Your task to perform on an android device: clear all cookies in the chrome app Image 0: 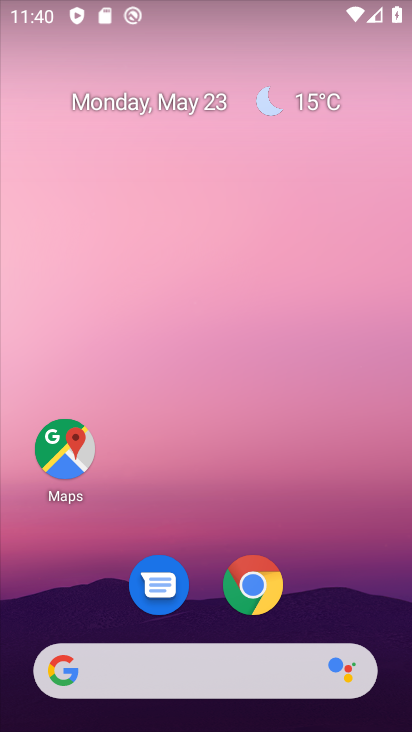
Step 0: click (260, 582)
Your task to perform on an android device: clear all cookies in the chrome app Image 1: 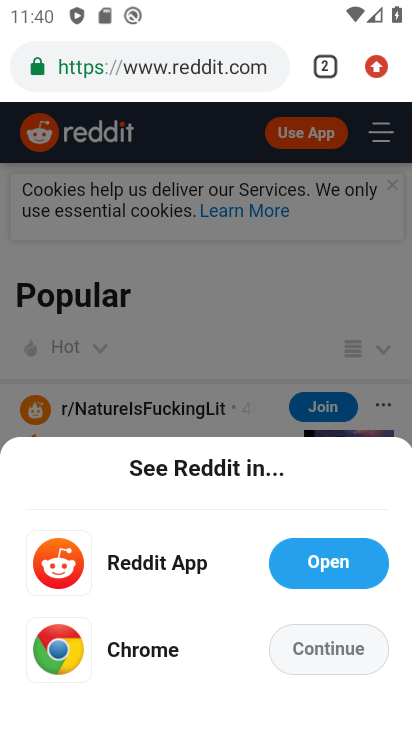
Step 1: click (379, 60)
Your task to perform on an android device: clear all cookies in the chrome app Image 2: 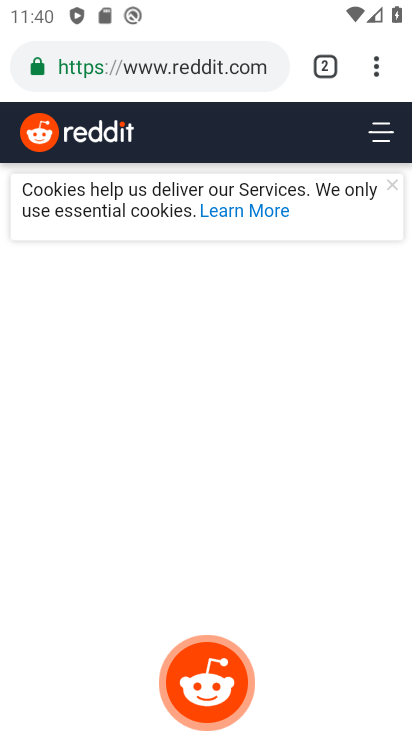
Step 2: click (376, 63)
Your task to perform on an android device: clear all cookies in the chrome app Image 3: 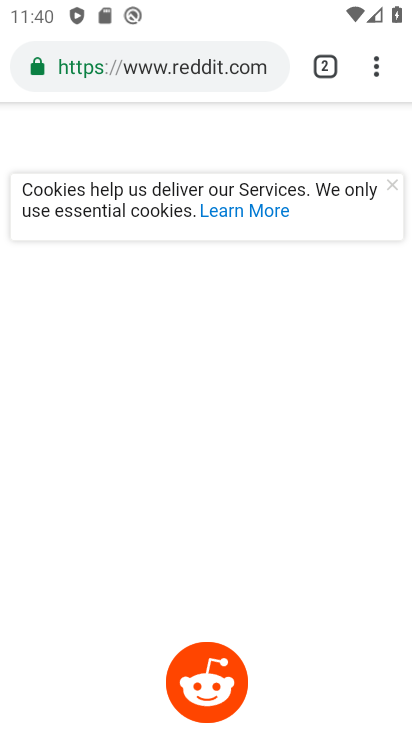
Step 3: click (376, 63)
Your task to perform on an android device: clear all cookies in the chrome app Image 4: 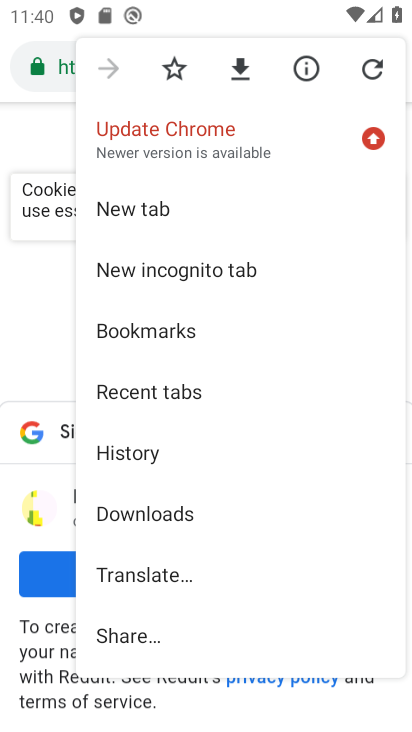
Step 4: drag from (219, 553) to (247, 177)
Your task to perform on an android device: clear all cookies in the chrome app Image 5: 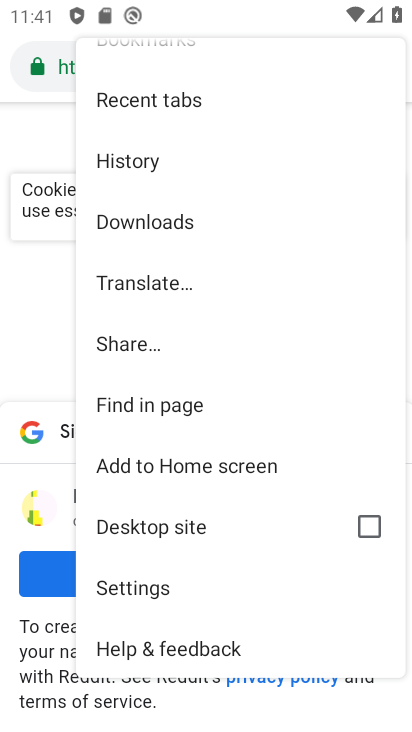
Step 5: click (160, 587)
Your task to perform on an android device: clear all cookies in the chrome app Image 6: 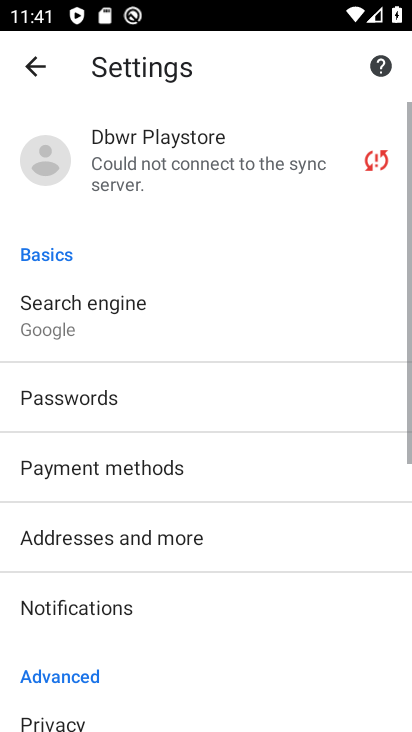
Step 6: drag from (160, 587) to (198, 344)
Your task to perform on an android device: clear all cookies in the chrome app Image 7: 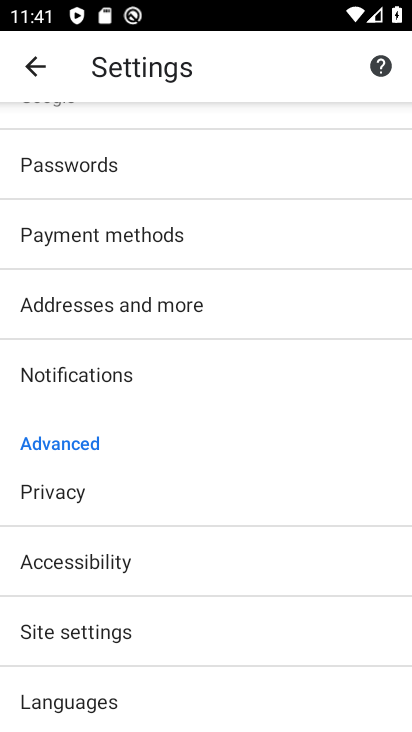
Step 7: click (181, 497)
Your task to perform on an android device: clear all cookies in the chrome app Image 8: 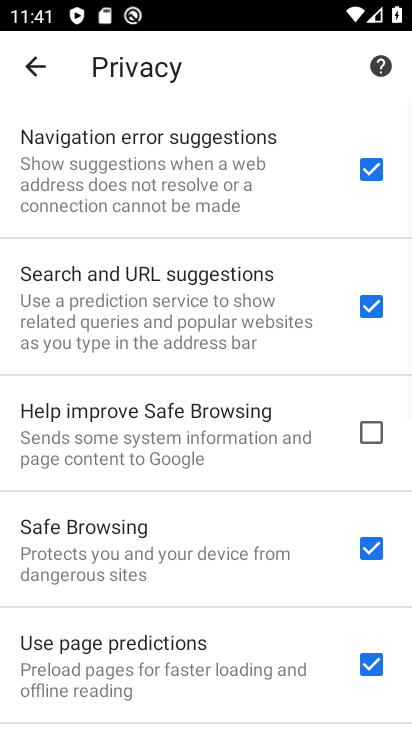
Step 8: drag from (205, 622) to (279, 49)
Your task to perform on an android device: clear all cookies in the chrome app Image 9: 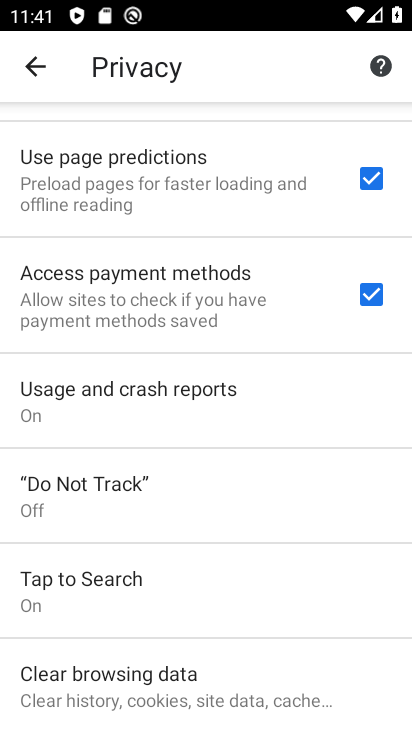
Step 9: drag from (214, 542) to (252, 244)
Your task to perform on an android device: clear all cookies in the chrome app Image 10: 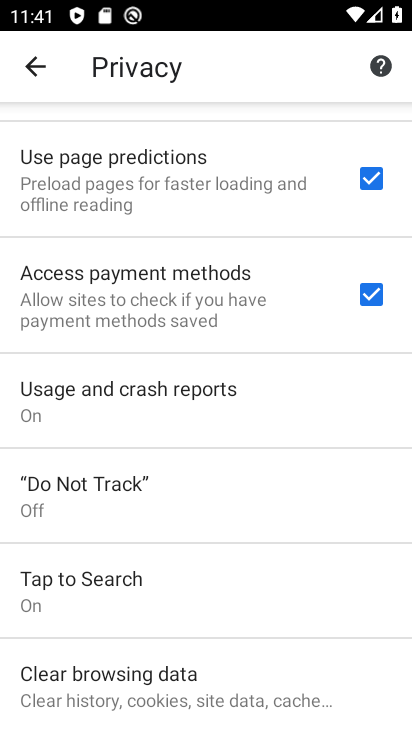
Step 10: click (191, 686)
Your task to perform on an android device: clear all cookies in the chrome app Image 11: 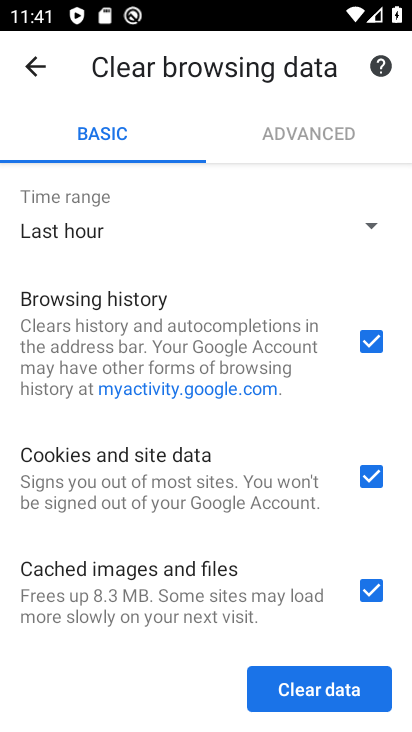
Step 11: click (367, 580)
Your task to perform on an android device: clear all cookies in the chrome app Image 12: 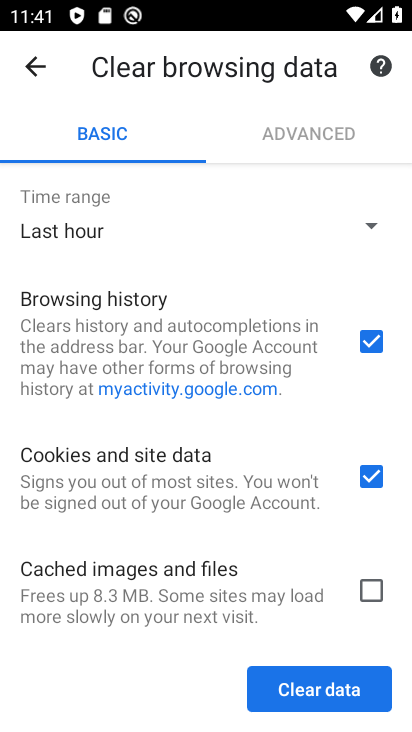
Step 12: click (370, 324)
Your task to perform on an android device: clear all cookies in the chrome app Image 13: 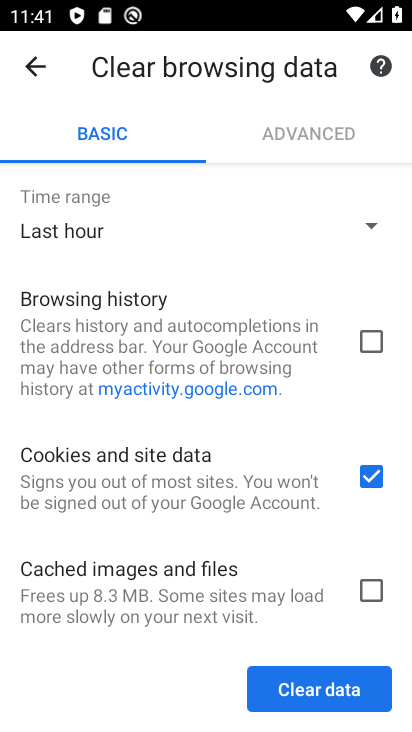
Step 13: click (325, 684)
Your task to perform on an android device: clear all cookies in the chrome app Image 14: 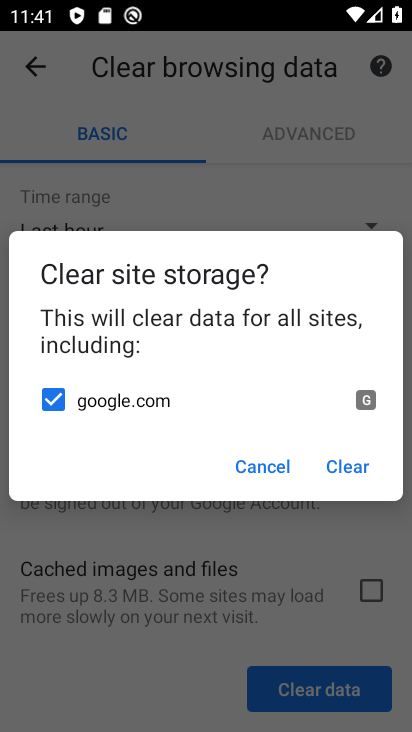
Step 14: click (359, 462)
Your task to perform on an android device: clear all cookies in the chrome app Image 15: 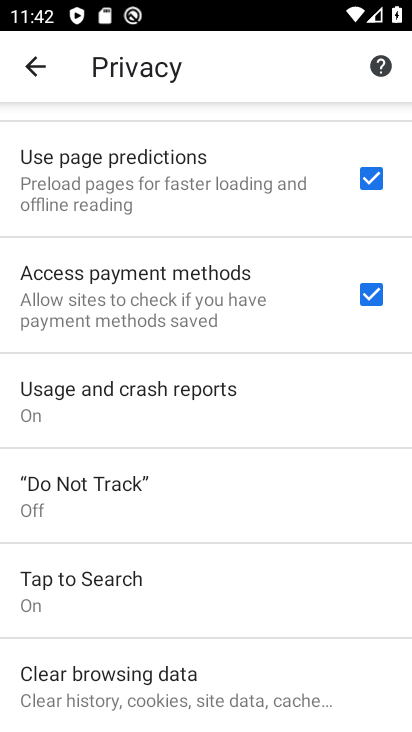
Step 15: task complete